Your task to perform on an android device: open a new tab in the chrome app Image 0: 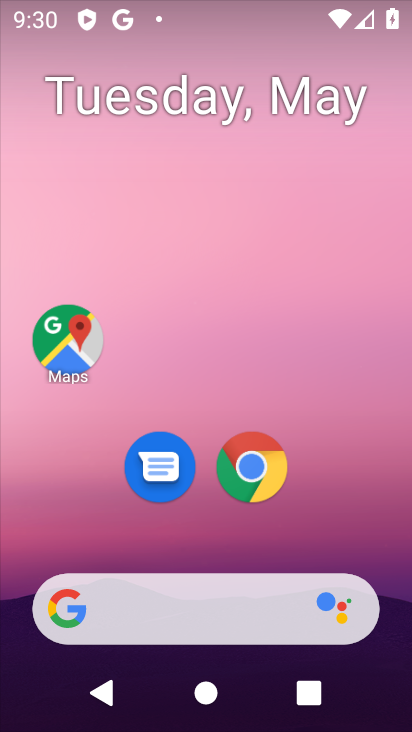
Step 0: drag from (364, 541) to (265, 17)
Your task to perform on an android device: open a new tab in the chrome app Image 1: 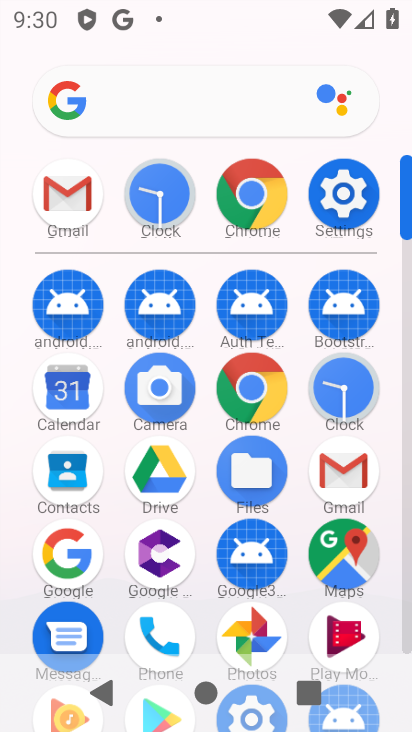
Step 1: drag from (8, 583) to (8, 281)
Your task to perform on an android device: open a new tab in the chrome app Image 2: 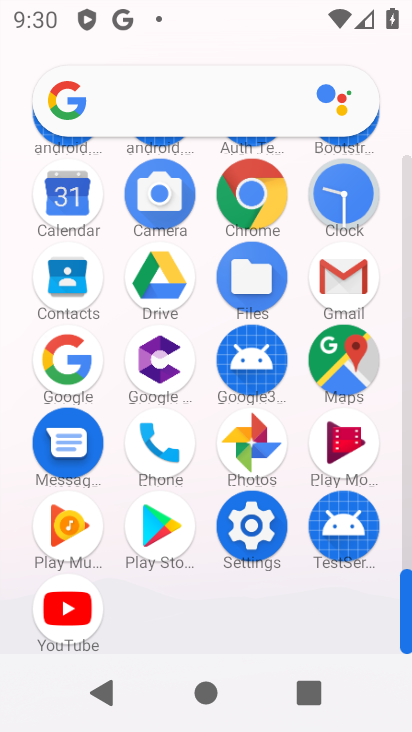
Step 2: click (242, 195)
Your task to perform on an android device: open a new tab in the chrome app Image 3: 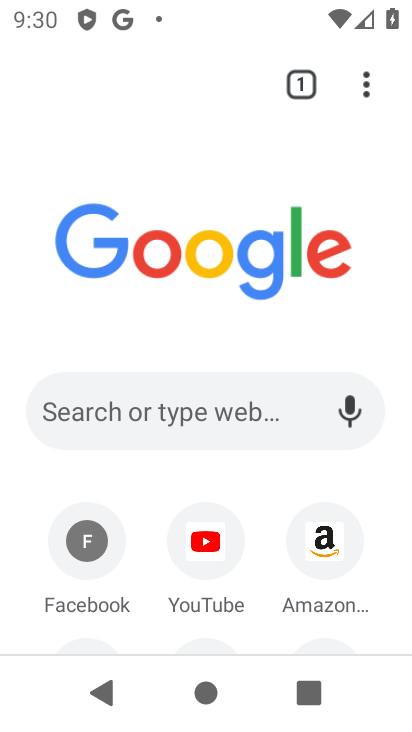
Step 3: task complete